Your task to perform on an android device: turn on airplane mode Image 0: 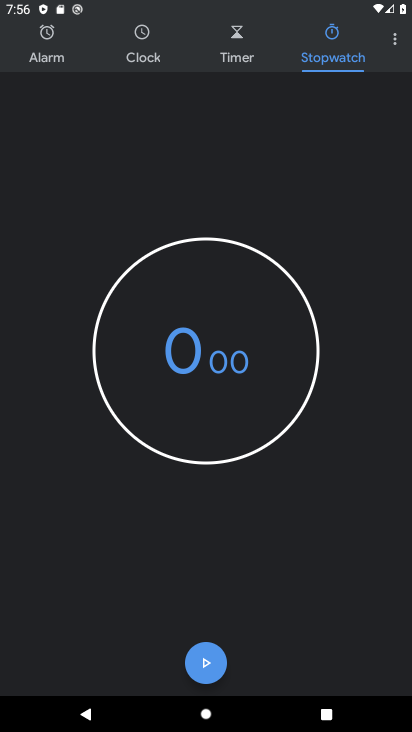
Step 0: press home button
Your task to perform on an android device: turn on airplane mode Image 1: 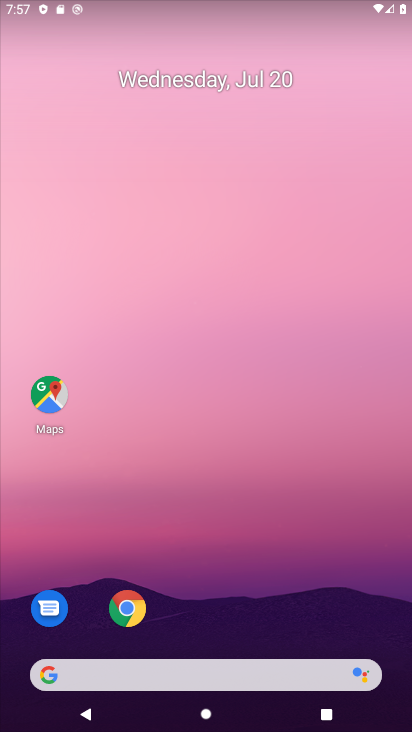
Step 1: drag from (245, 641) to (250, 85)
Your task to perform on an android device: turn on airplane mode Image 2: 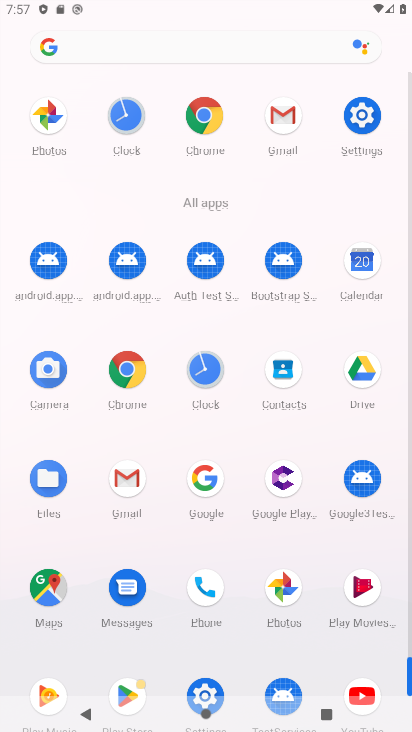
Step 2: drag from (220, 649) to (222, 478)
Your task to perform on an android device: turn on airplane mode Image 3: 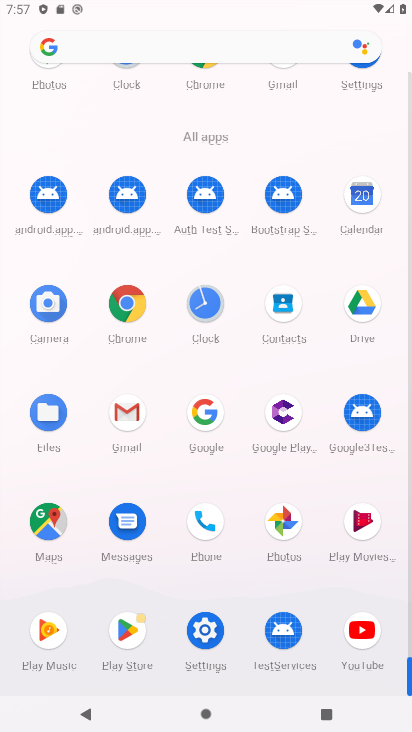
Step 3: click (202, 628)
Your task to perform on an android device: turn on airplane mode Image 4: 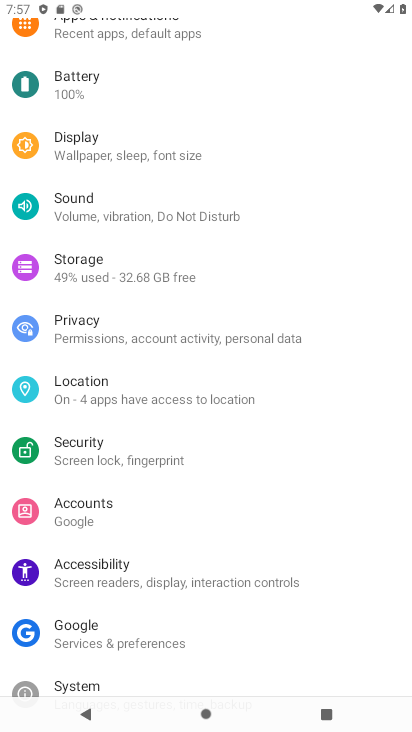
Step 4: drag from (143, 194) to (146, 408)
Your task to perform on an android device: turn on airplane mode Image 5: 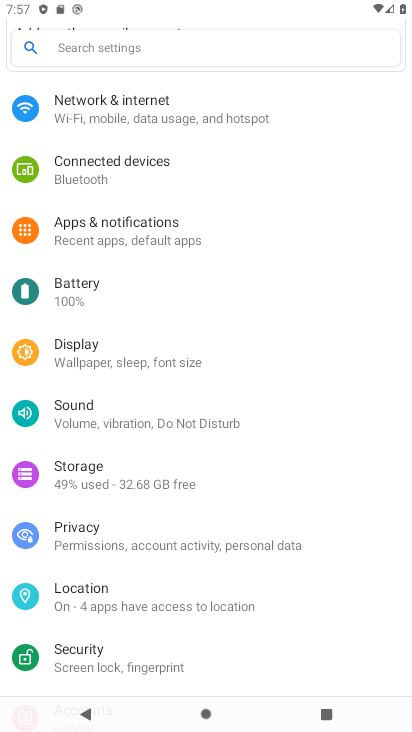
Step 5: click (144, 99)
Your task to perform on an android device: turn on airplane mode Image 6: 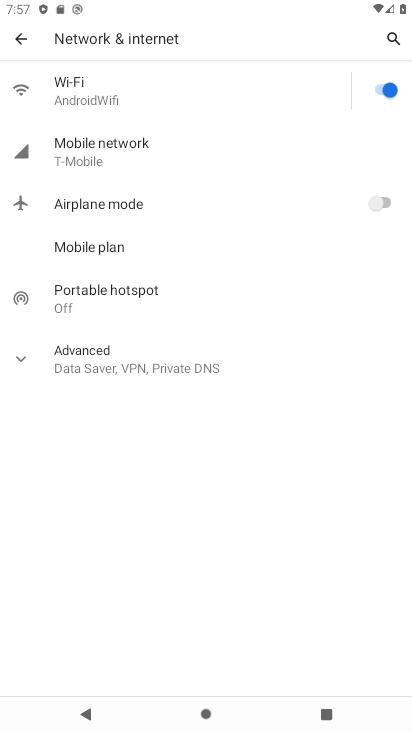
Step 6: click (303, 214)
Your task to perform on an android device: turn on airplane mode Image 7: 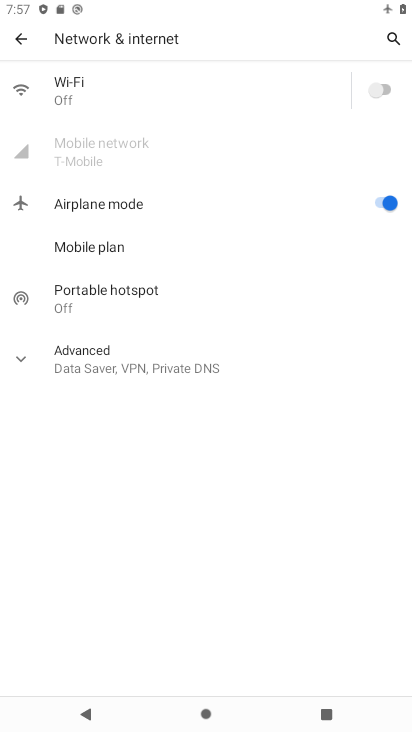
Step 7: task complete